Your task to perform on an android device: Search for sushi restaurants on Maps Image 0: 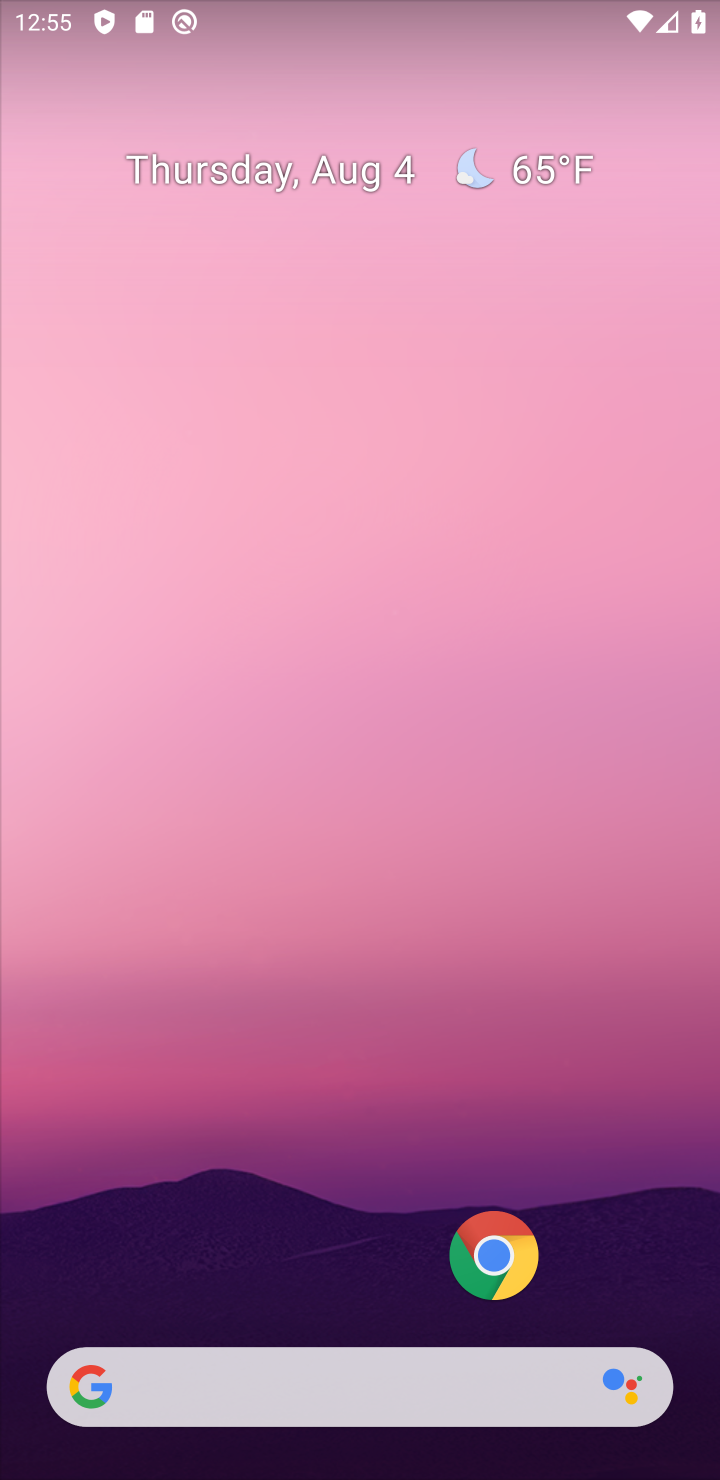
Step 0: drag from (385, 1192) to (544, 240)
Your task to perform on an android device: Search for sushi restaurants on Maps Image 1: 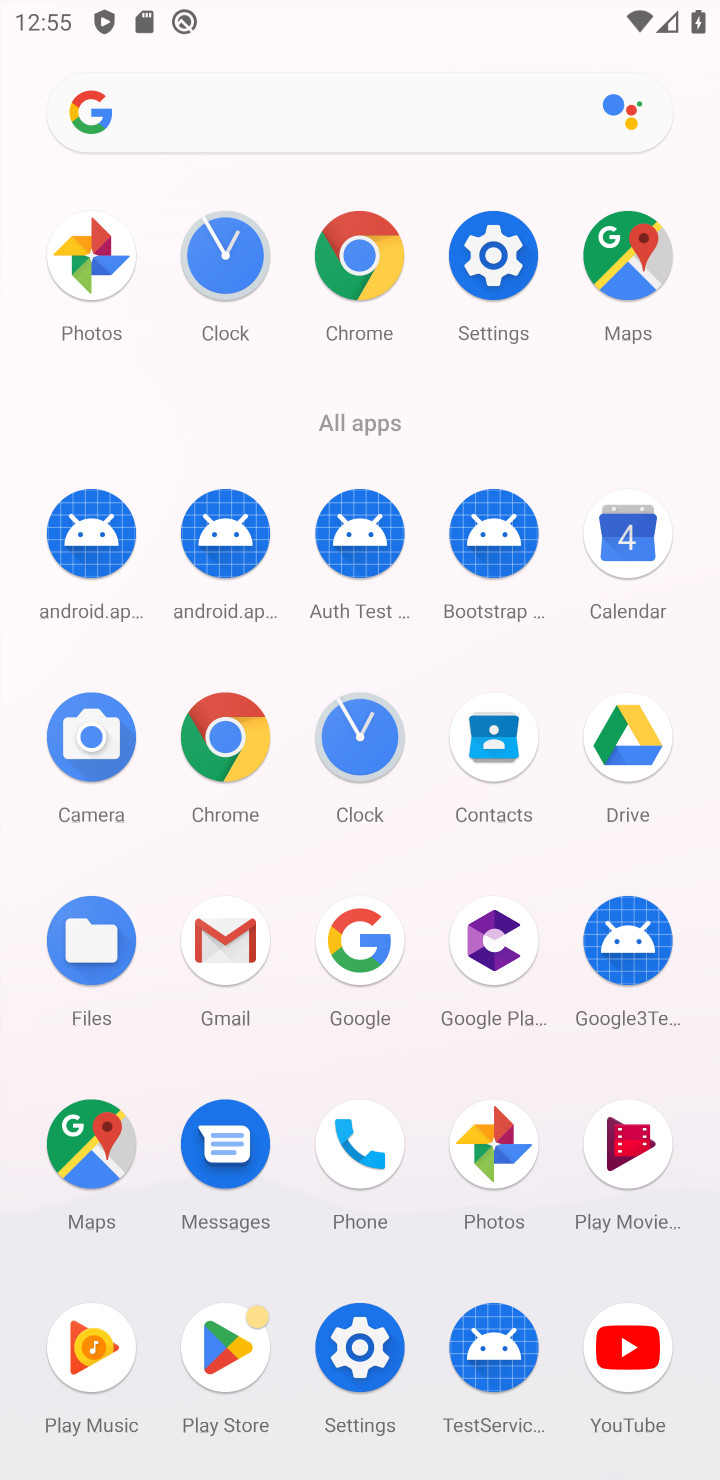
Step 1: click (89, 1148)
Your task to perform on an android device: Search for sushi restaurants on Maps Image 2: 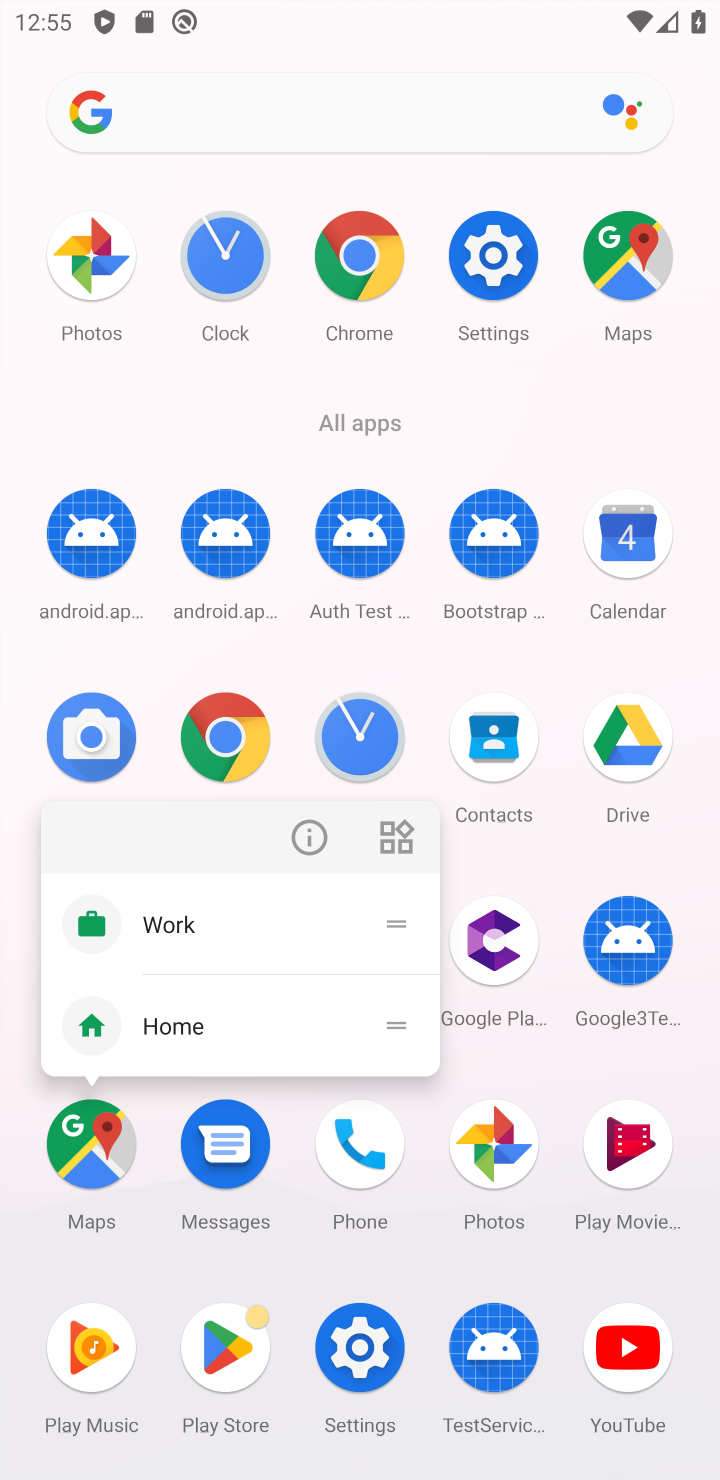
Step 2: click (66, 1165)
Your task to perform on an android device: Search for sushi restaurants on Maps Image 3: 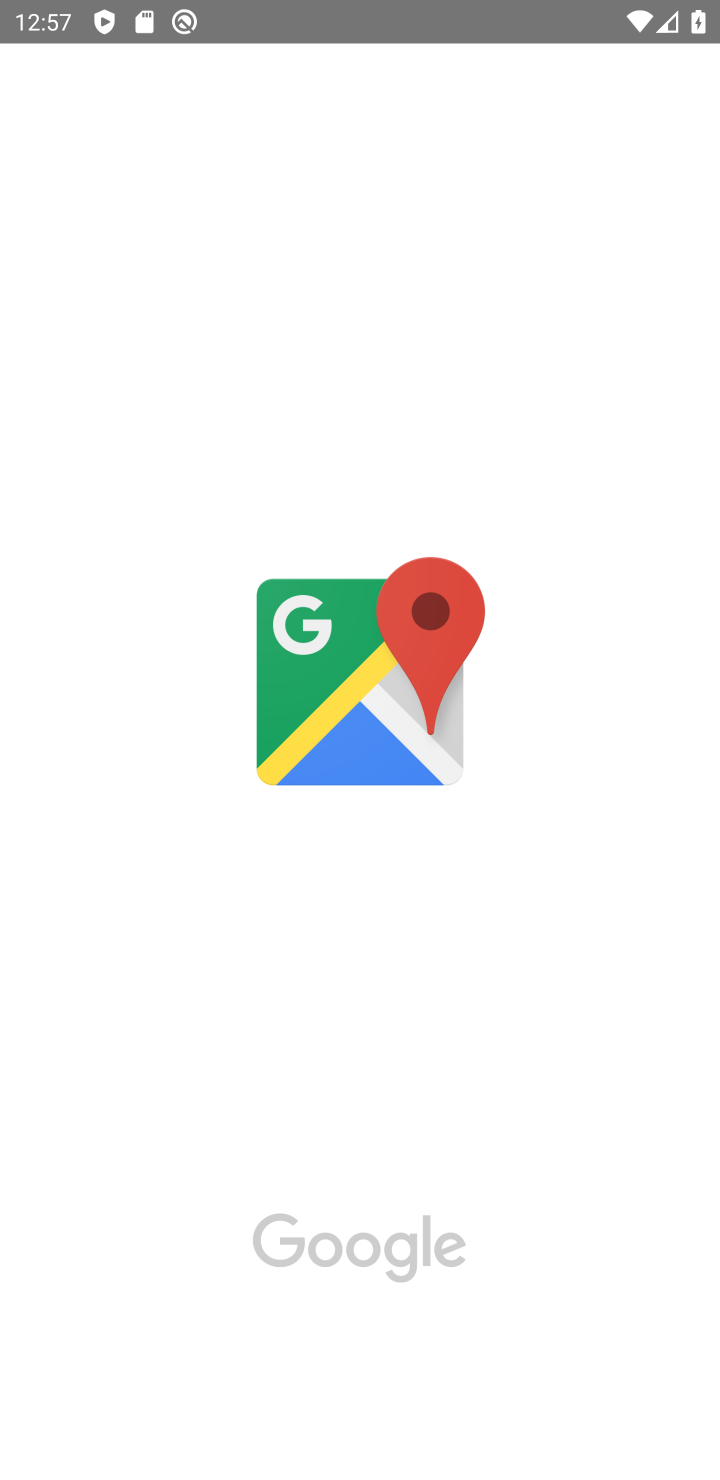
Step 3: task complete